Your task to perform on an android device: Open calendar and show me the third week of next month Image 0: 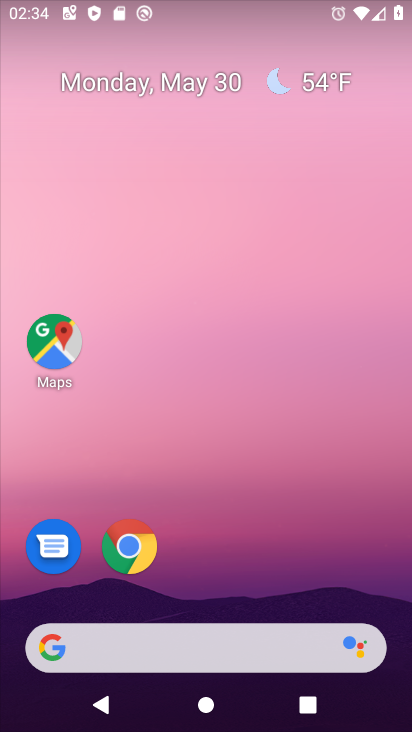
Step 0: drag from (197, 594) to (229, 132)
Your task to perform on an android device: Open calendar and show me the third week of next month Image 1: 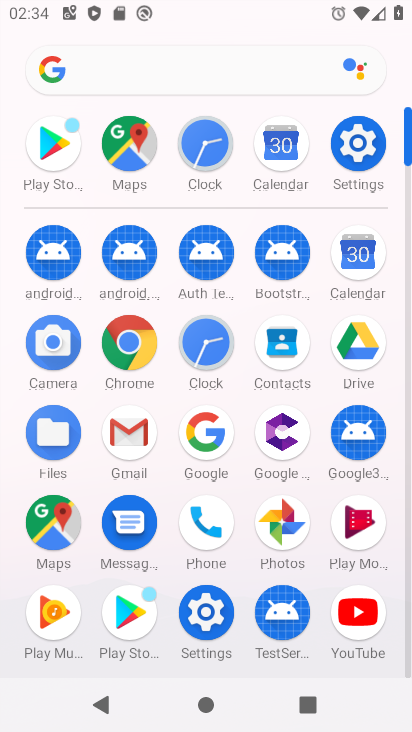
Step 1: click (361, 250)
Your task to perform on an android device: Open calendar and show me the third week of next month Image 2: 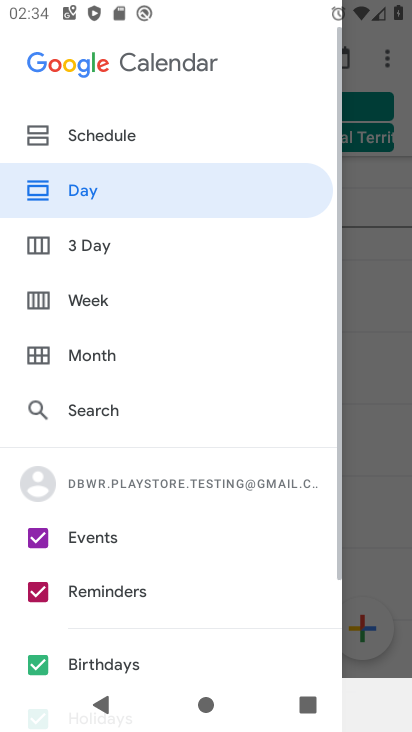
Step 2: click (118, 302)
Your task to perform on an android device: Open calendar and show me the third week of next month Image 3: 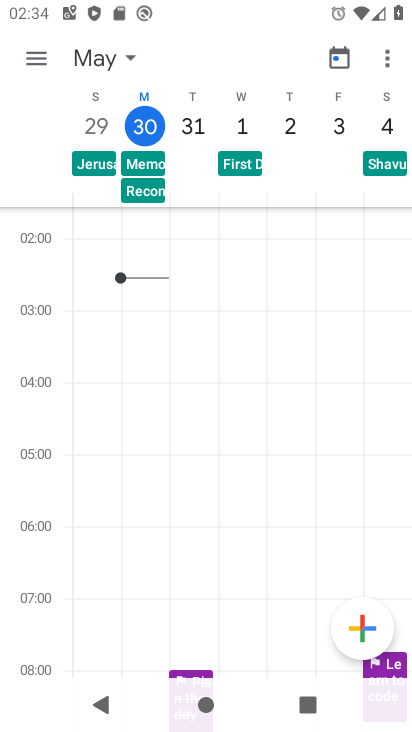
Step 3: click (127, 54)
Your task to perform on an android device: Open calendar and show me the third week of next month Image 4: 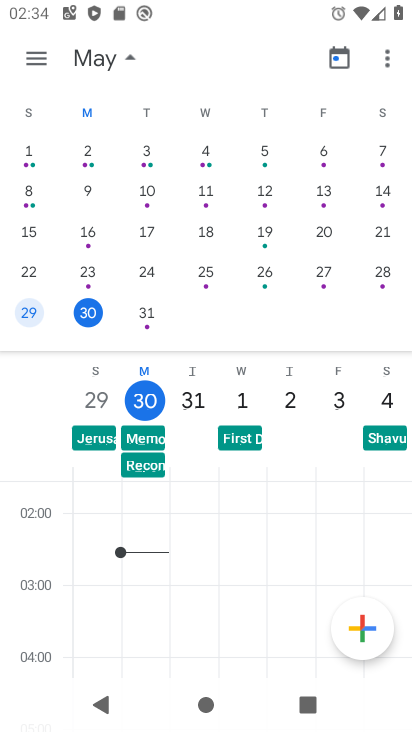
Step 4: drag from (368, 215) to (0, 202)
Your task to perform on an android device: Open calendar and show me the third week of next month Image 5: 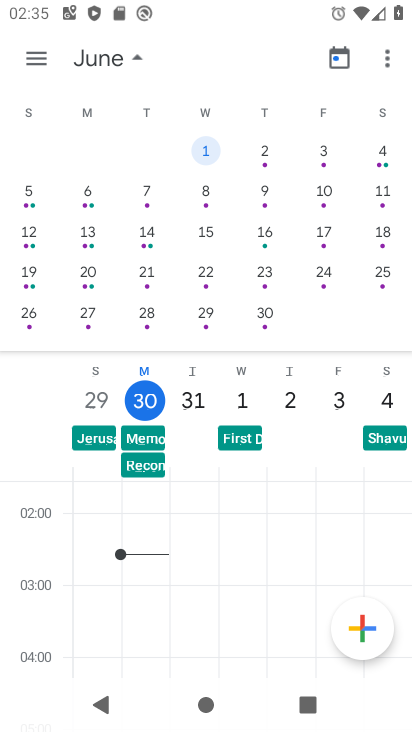
Step 5: click (34, 236)
Your task to perform on an android device: Open calendar and show me the third week of next month Image 6: 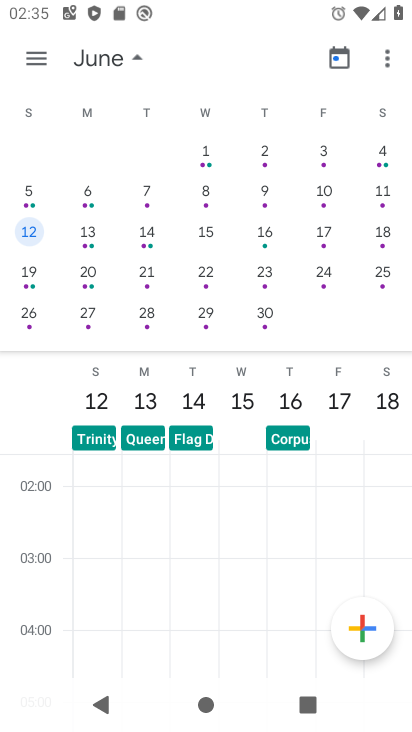
Step 6: click (135, 52)
Your task to perform on an android device: Open calendar and show me the third week of next month Image 7: 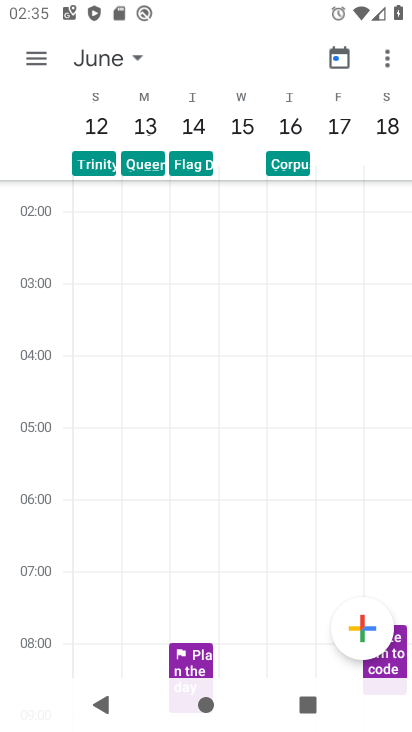
Step 7: click (110, 132)
Your task to perform on an android device: Open calendar and show me the third week of next month Image 8: 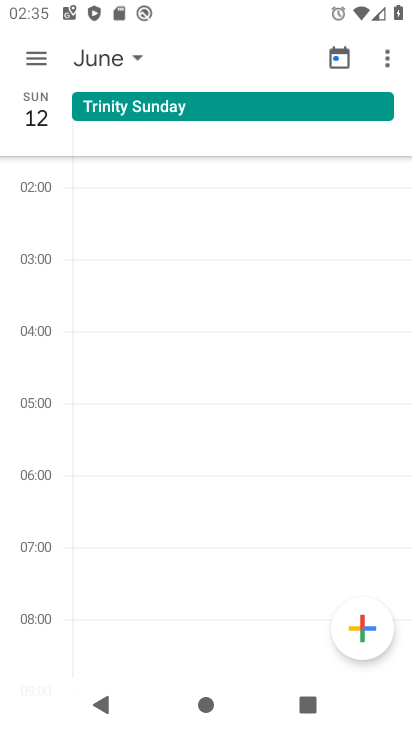
Step 8: click (60, 133)
Your task to perform on an android device: Open calendar and show me the third week of next month Image 9: 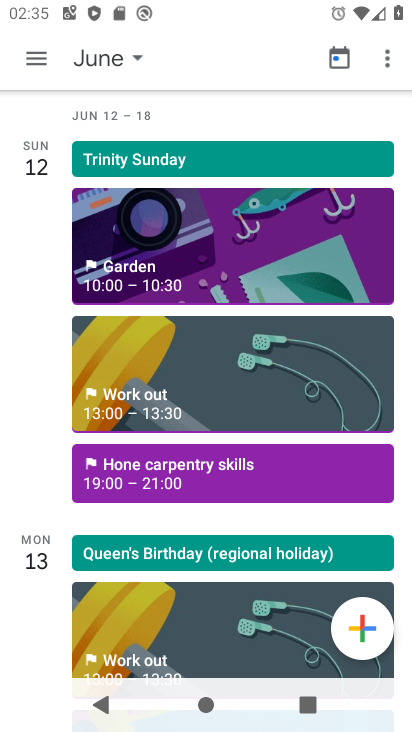
Step 9: task complete